Your task to perform on an android device: When is my next meeting? Image 0: 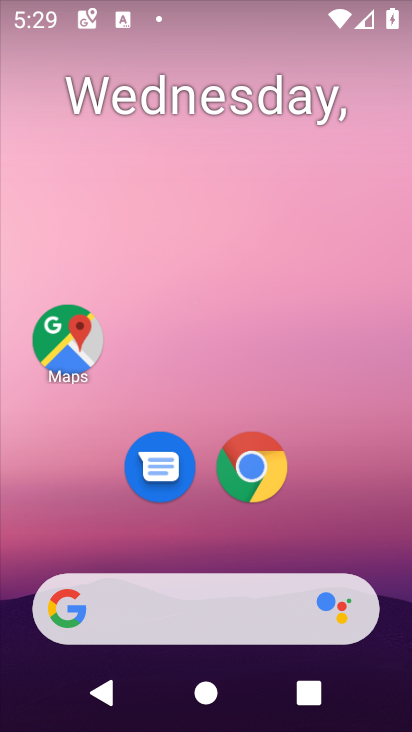
Step 0: press home button
Your task to perform on an android device: When is my next meeting? Image 1: 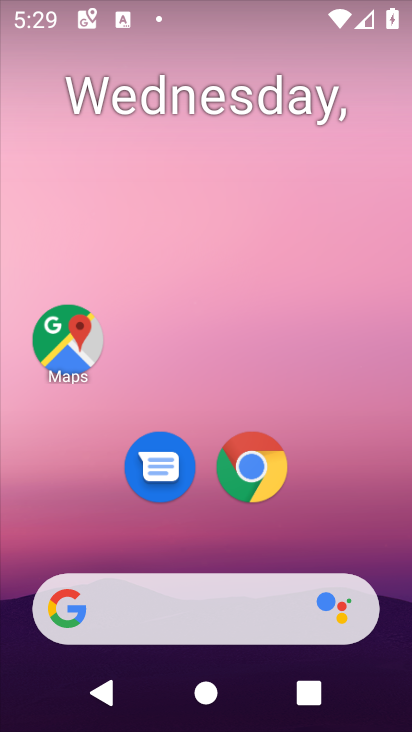
Step 1: drag from (337, 532) to (215, 5)
Your task to perform on an android device: When is my next meeting? Image 2: 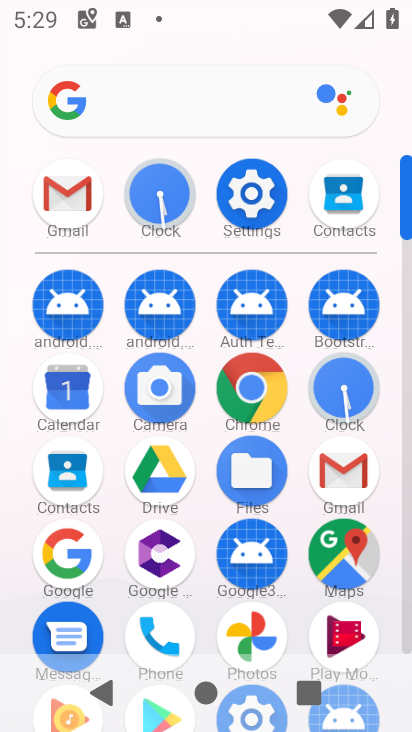
Step 2: click (77, 395)
Your task to perform on an android device: When is my next meeting? Image 3: 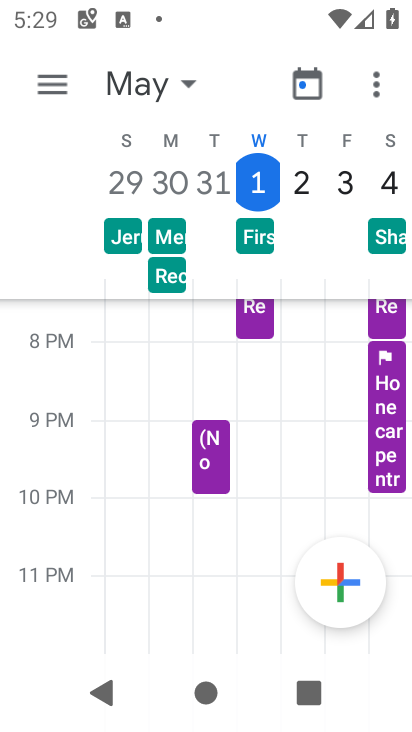
Step 3: drag from (69, 573) to (92, 726)
Your task to perform on an android device: When is my next meeting? Image 4: 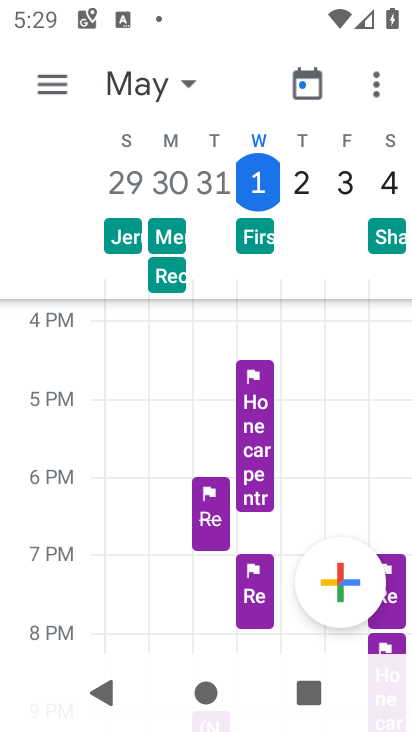
Step 4: drag from (56, 426) to (77, 728)
Your task to perform on an android device: When is my next meeting? Image 5: 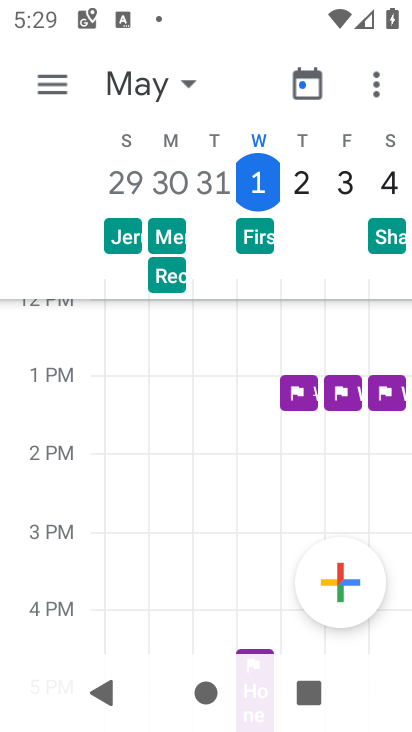
Step 5: drag from (56, 449) to (63, 676)
Your task to perform on an android device: When is my next meeting? Image 6: 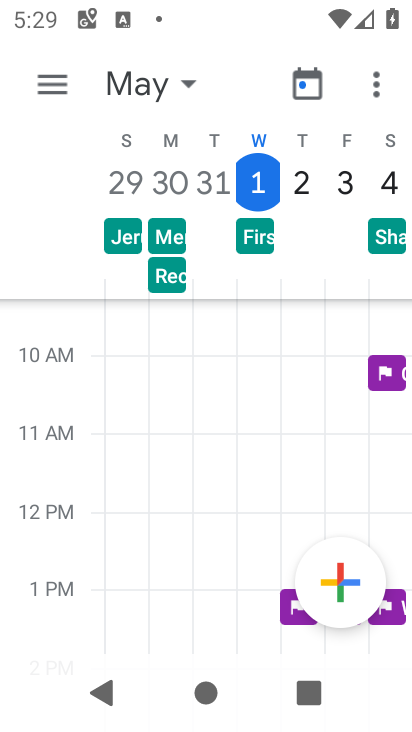
Step 6: drag from (43, 351) to (73, 686)
Your task to perform on an android device: When is my next meeting? Image 7: 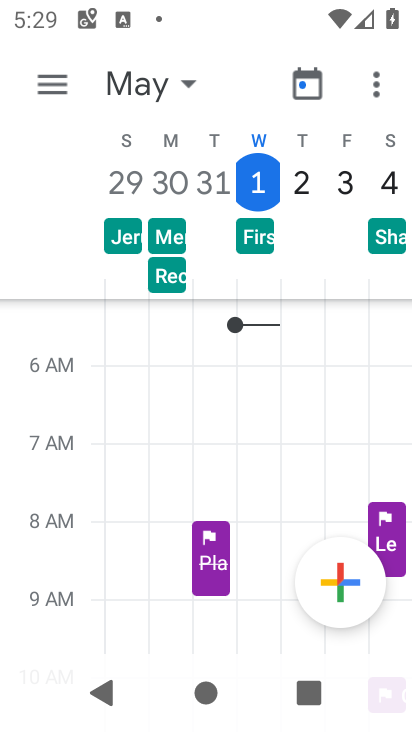
Step 7: drag from (37, 347) to (52, 677)
Your task to perform on an android device: When is my next meeting? Image 8: 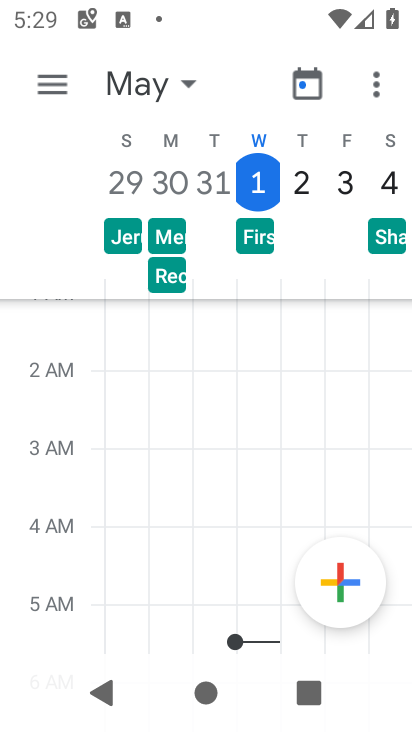
Step 8: drag from (60, 357) to (60, 658)
Your task to perform on an android device: When is my next meeting? Image 9: 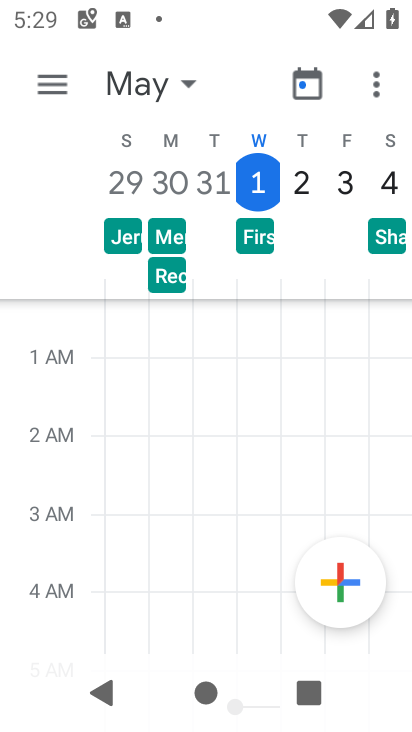
Step 9: click (51, 662)
Your task to perform on an android device: When is my next meeting? Image 10: 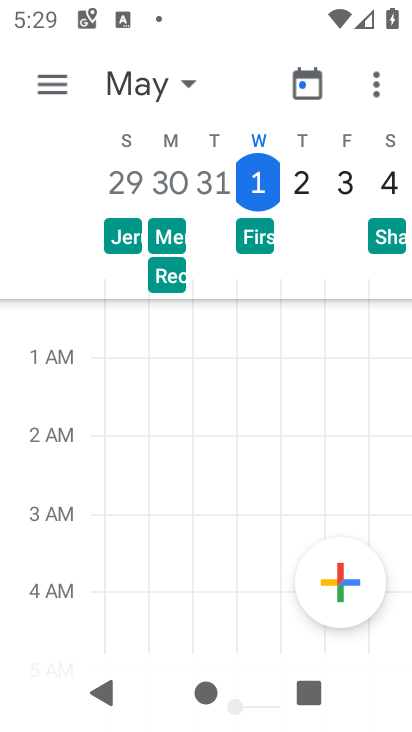
Step 10: task complete